Your task to perform on an android device: turn notification dots off Image 0: 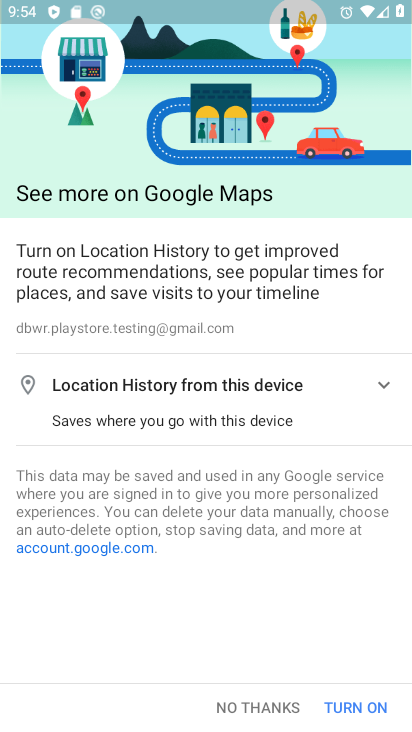
Step 0: click (275, 712)
Your task to perform on an android device: turn notification dots off Image 1: 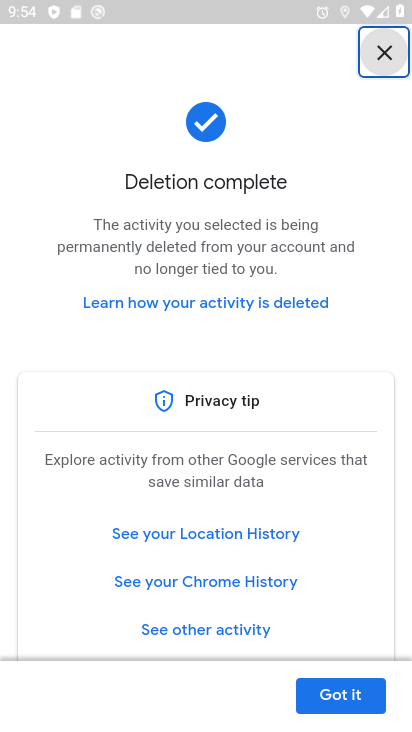
Step 1: press home button
Your task to perform on an android device: turn notification dots off Image 2: 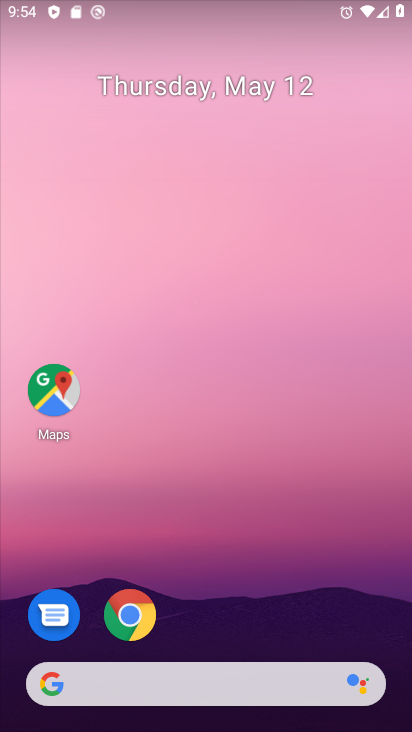
Step 2: drag from (294, 502) to (268, 12)
Your task to perform on an android device: turn notification dots off Image 3: 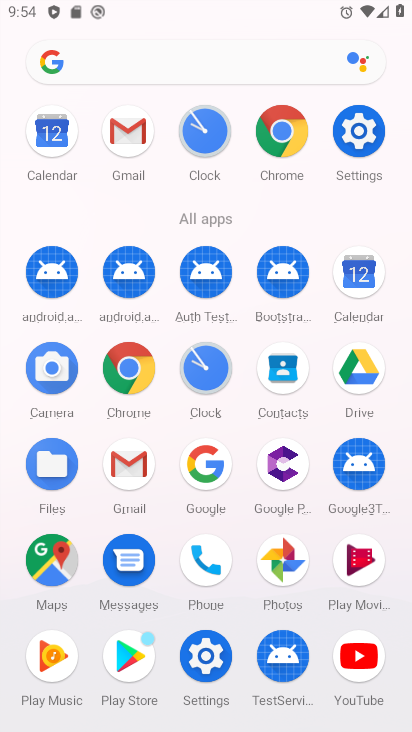
Step 3: click (354, 122)
Your task to perform on an android device: turn notification dots off Image 4: 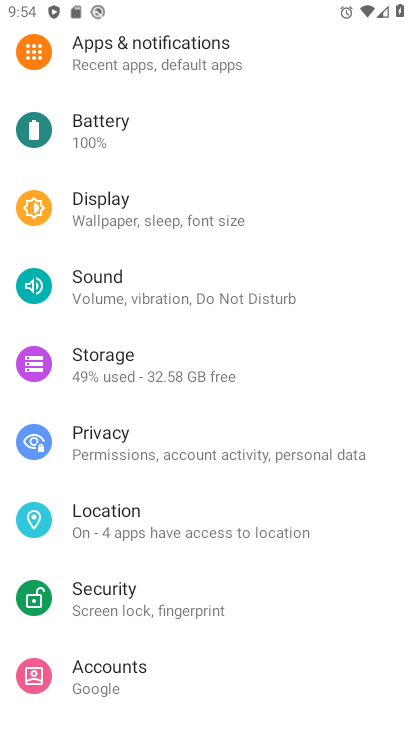
Step 4: drag from (179, 623) to (253, 653)
Your task to perform on an android device: turn notification dots off Image 5: 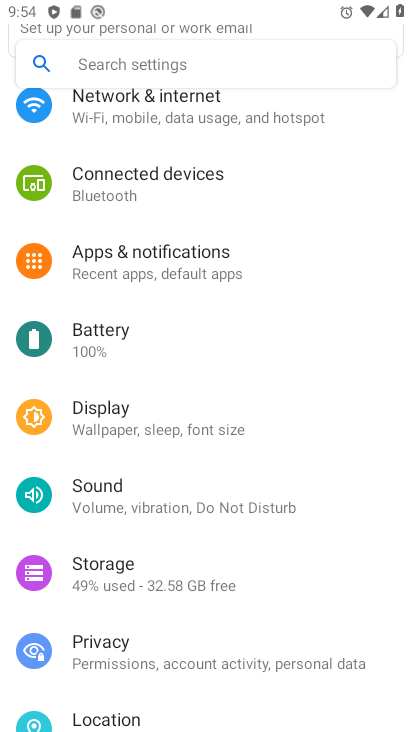
Step 5: click (181, 247)
Your task to perform on an android device: turn notification dots off Image 6: 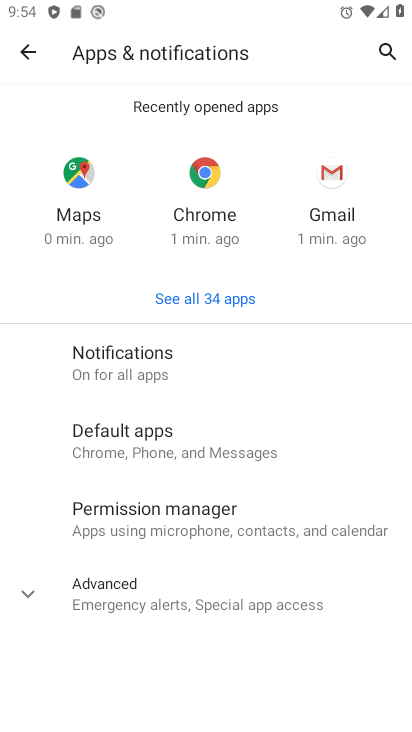
Step 6: click (164, 367)
Your task to perform on an android device: turn notification dots off Image 7: 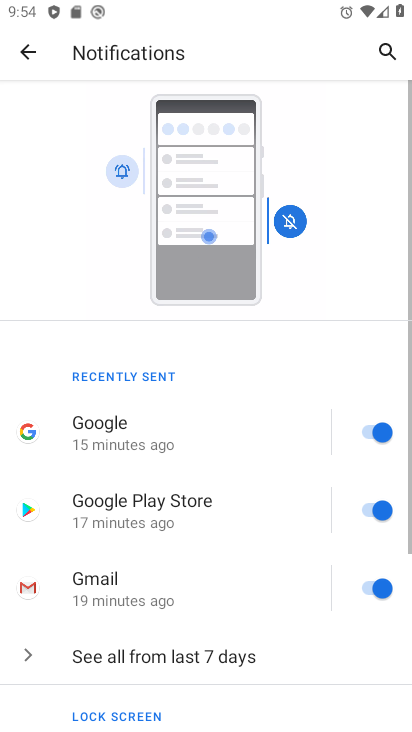
Step 7: drag from (279, 580) to (266, 5)
Your task to perform on an android device: turn notification dots off Image 8: 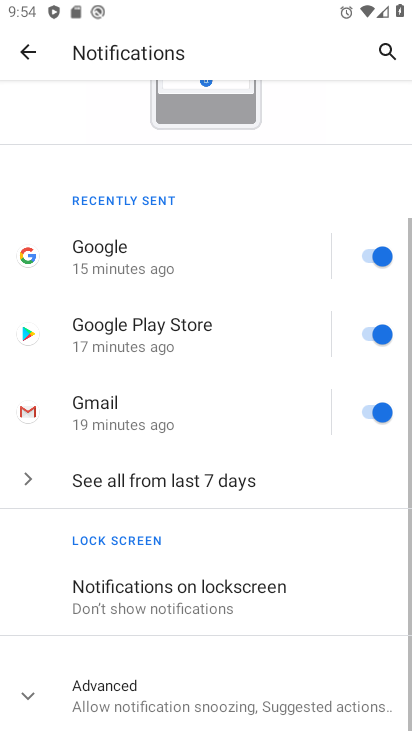
Step 8: click (131, 702)
Your task to perform on an android device: turn notification dots off Image 9: 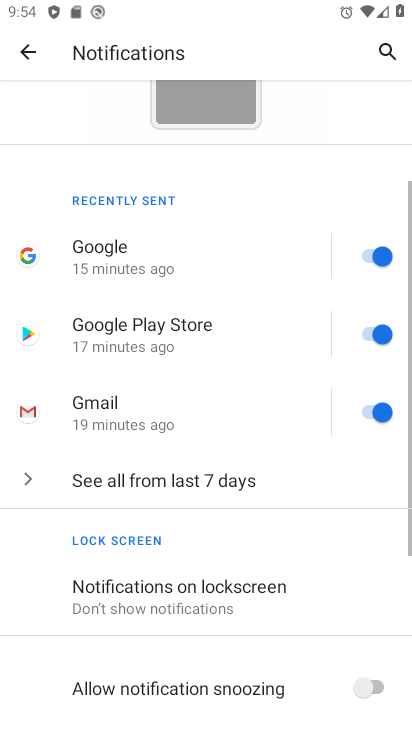
Step 9: drag from (253, 667) to (209, 124)
Your task to perform on an android device: turn notification dots off Image 10: 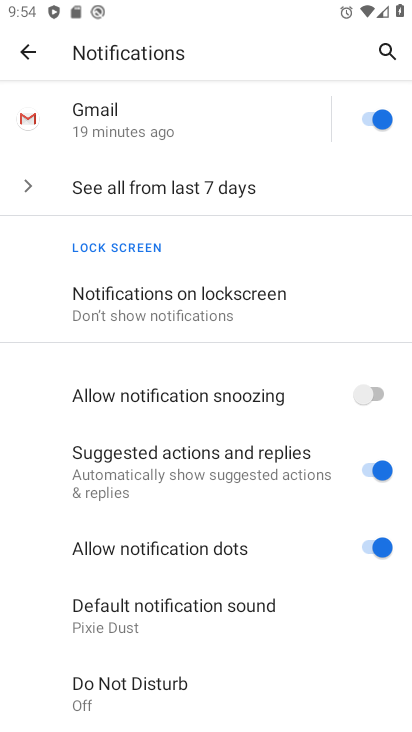
Step 10: click (379, 544)
Your task to perform on an android device: turn notification dots off Image 11: 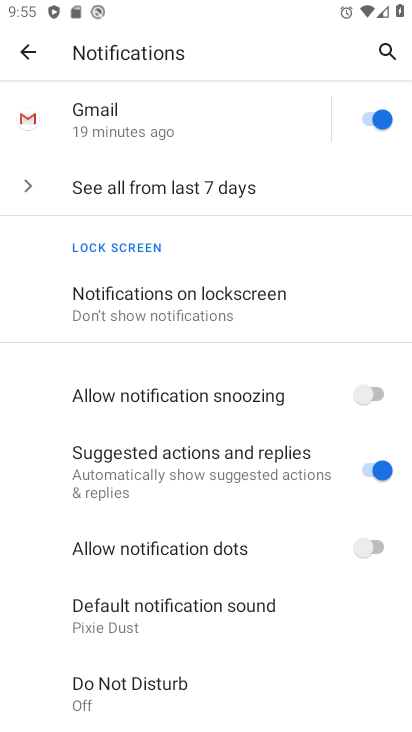
Step 11: task complete